Your task to perform on an android device: Go to Android settings Image 0: 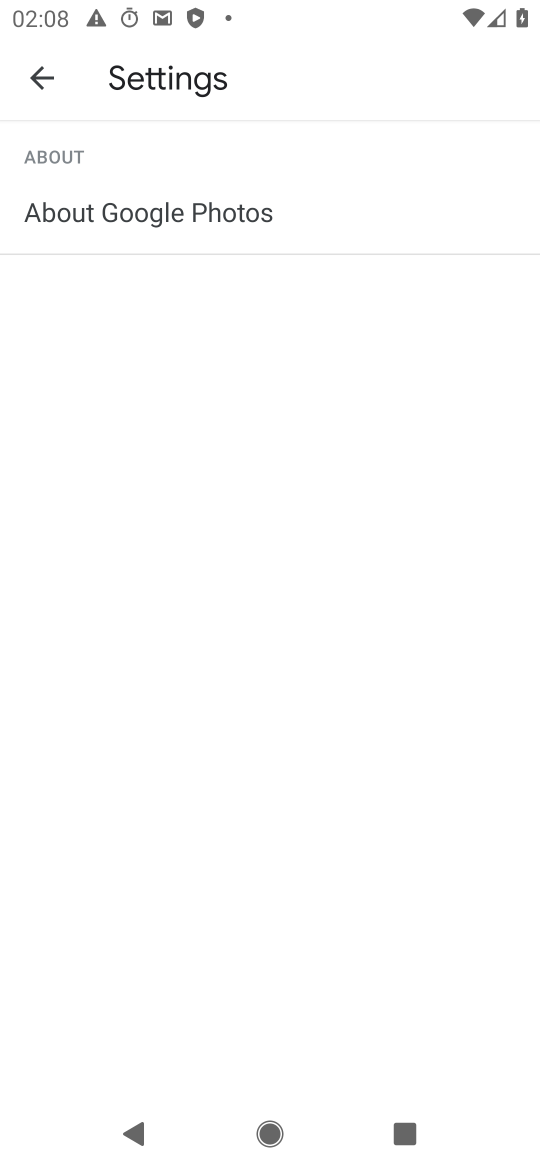
Step 0: press home button
Your task to perform on an android device: Go to Android settings Image 1: 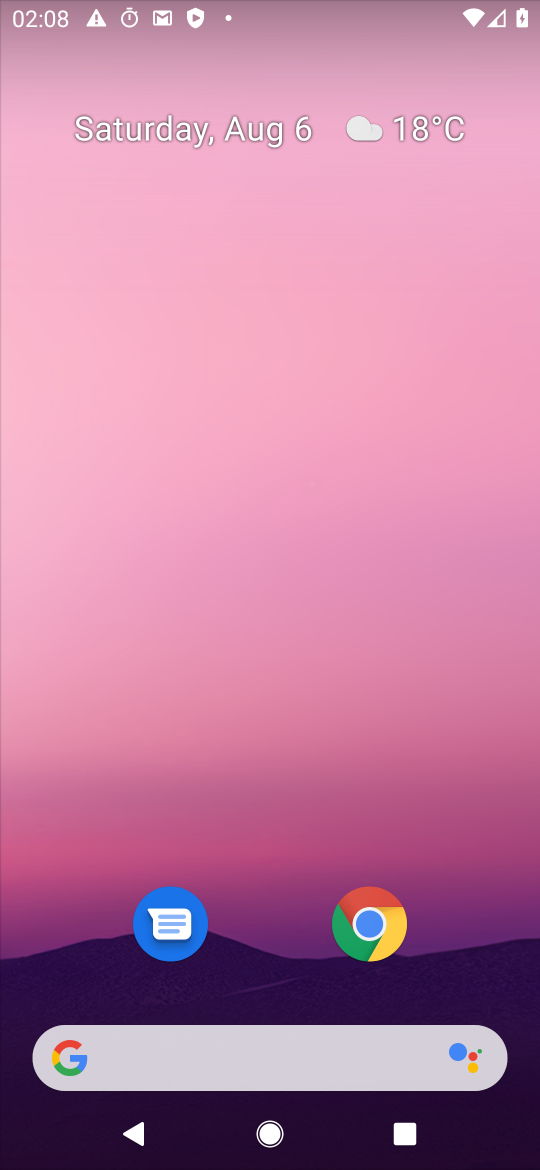
Step 1: drag from (366, 1055) to (416, 381)
Your task to perform on an android device: Go to Android settings Image 2: 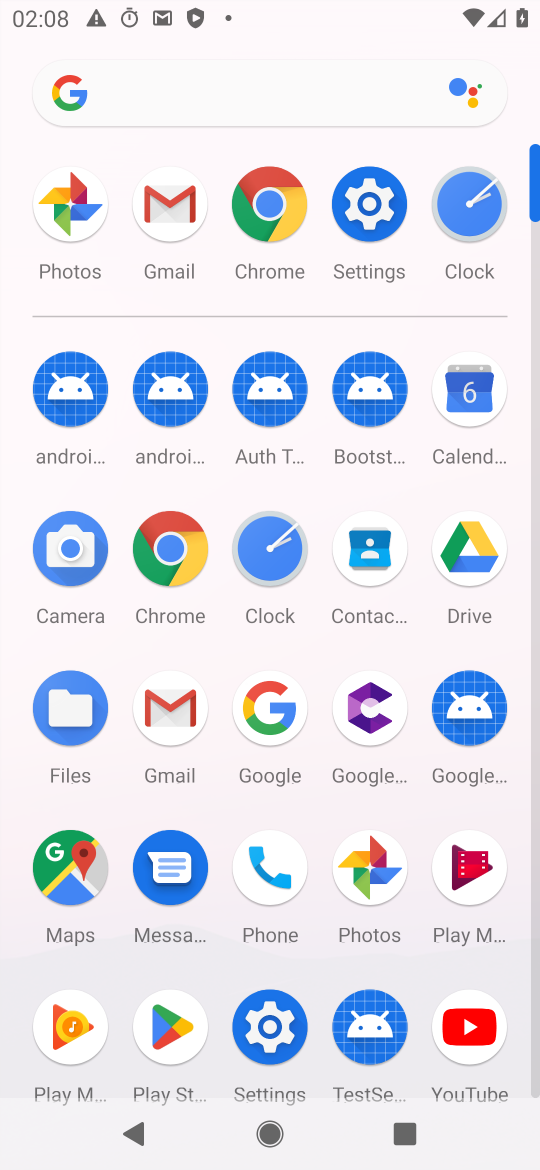
Step 2: click (359, 215)
Your task to perform on an android device: Go to Android settings Image 3: 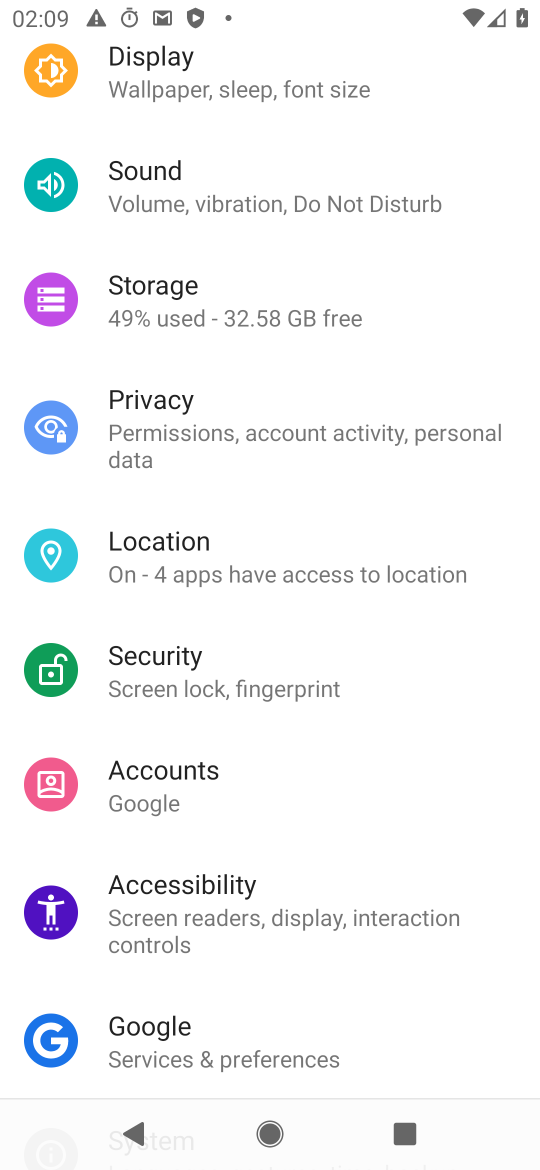
Step 3: drag from (441, 1014) to (446, 482)
Your task to perform on an android device: Go to Android settings Image 4: 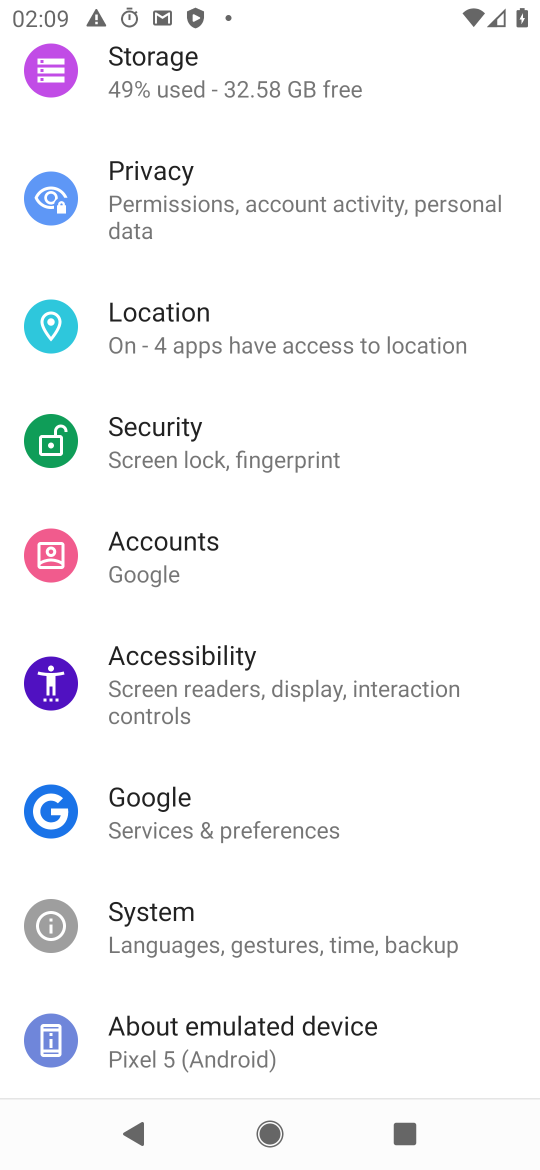
Step 4: click (276, 1051)
Your task to perform on an android device: Go to Android settings Image 5: 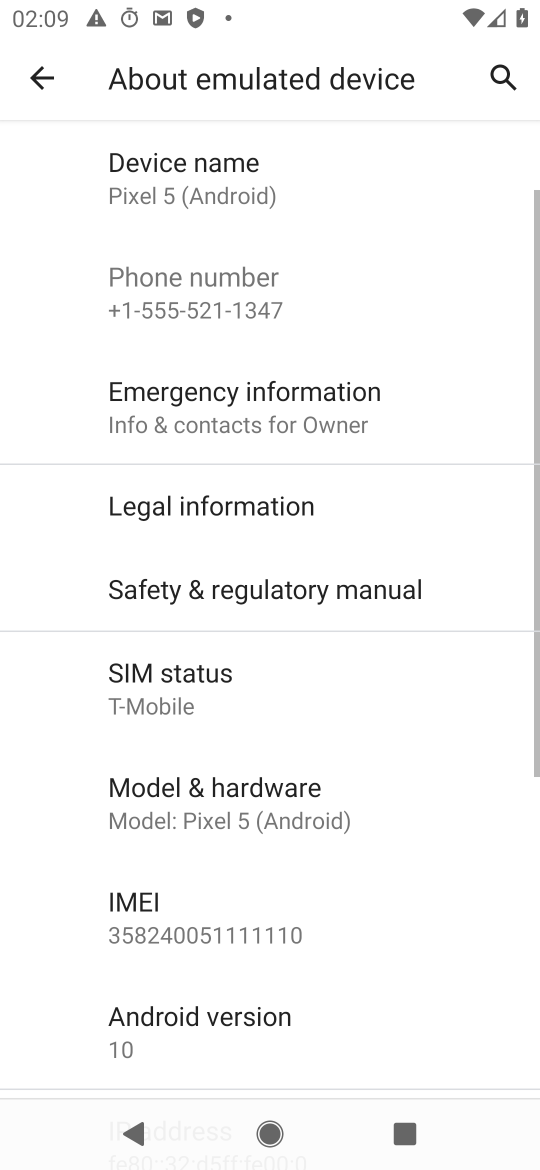
Step 5: click (272, 1021)
Your task to perform on an android device: Go to Android settings Image 6: 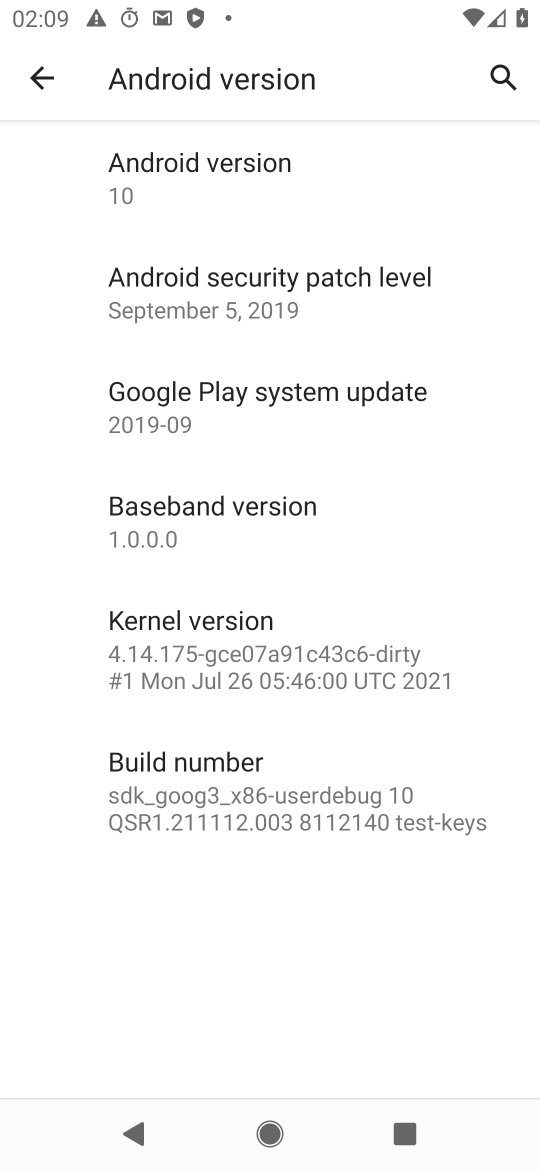
Step 6: task complete